Your task to perform on an android device: Open settings Image 0: 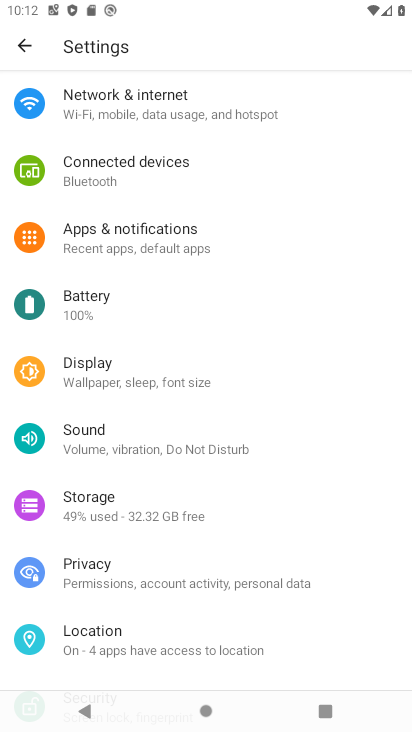
Step 0: task complete